Your task to perform on an android device: Go to Google maps Image 0: 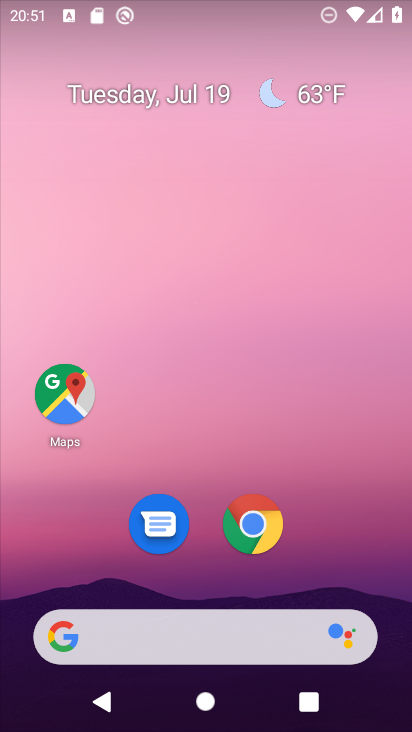
Step 0: click (67, 391)
Your task to perform on an android device: Go to Google maps Image 1: 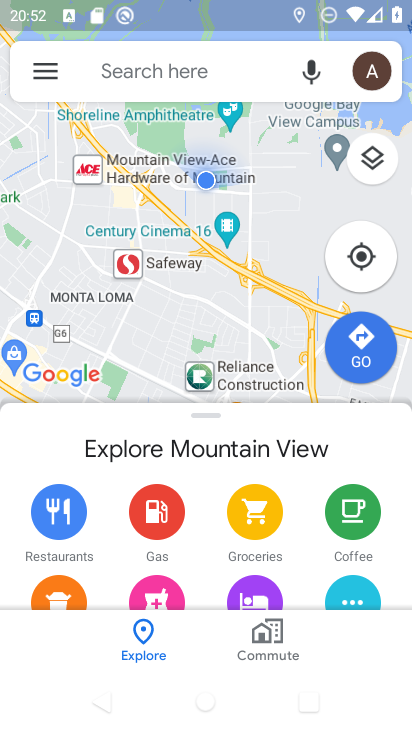
Step 1: task complete